Your task to perform on an android device: visit the assistant section in the google photos Image 0: 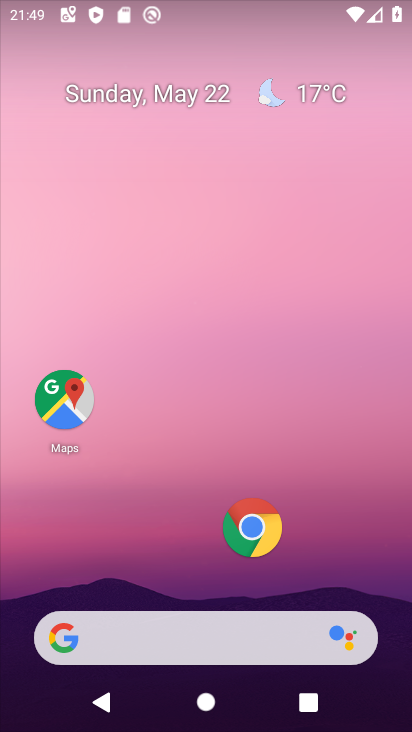
Step 0: drag from (321, 566) to (173, 92)
Your task to perform on an android device: visit the assistant section in the google photos Image 1: 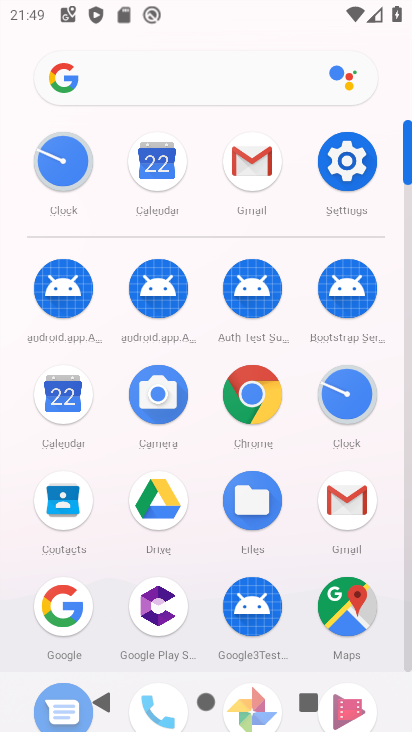
Step 1: drag from (200, 617) to (195, 280)
Your task to perform on an android device: visit the assistant section in the google photos Image 2: 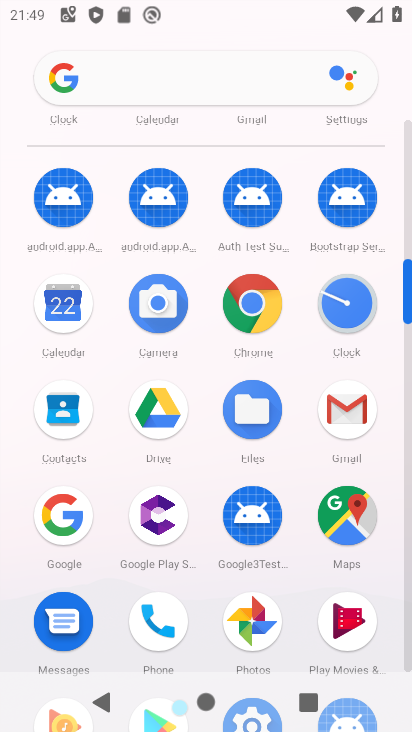
Step 2: click (246, 616)
Your task to perform on an android device: visit the assistant section in the google photos Image 3: 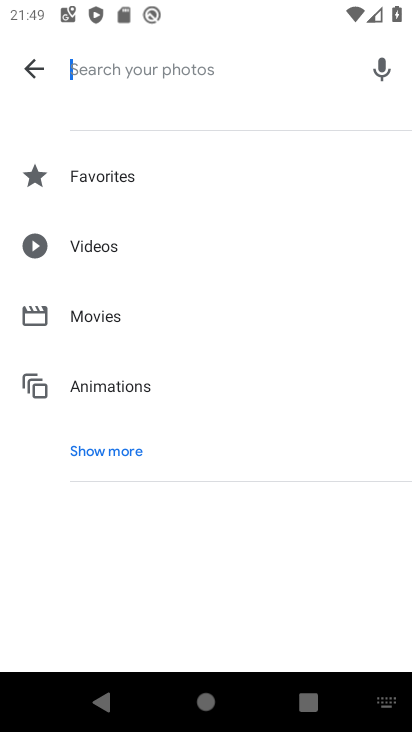
Step 3: click (26, 55)
Your task to perform on an android device: visit the assistant section in the google photos Image 4: 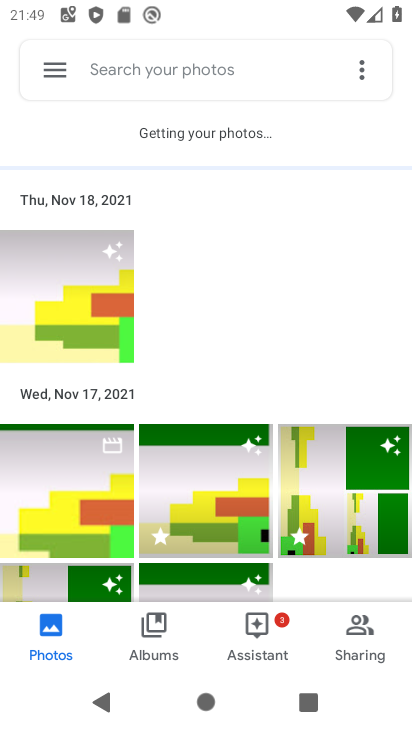
Step 4: click (252, 618)
Your task to perform on an android device: visit the assistant section in the google photos Image 5: 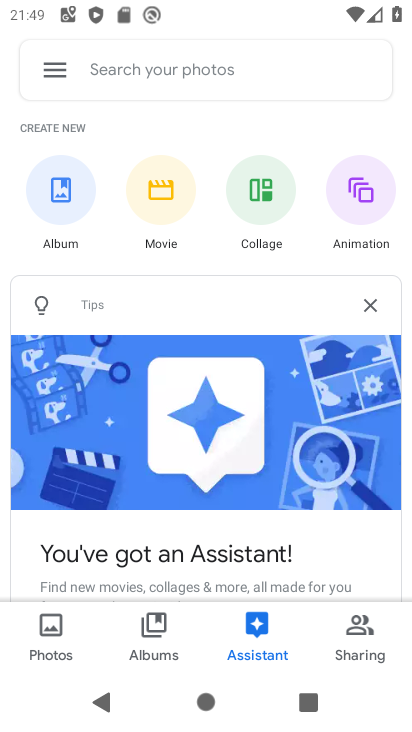
Step 5: task complete